Your task to perform on an android device: turn pop-ups on in chrome Image 0: 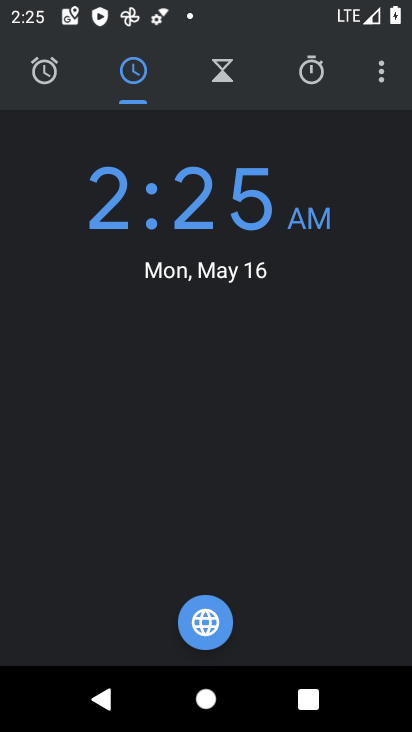
Step 0: press home button
Your task to perform on an android device: turn pop-ups on in chrome Image 1: 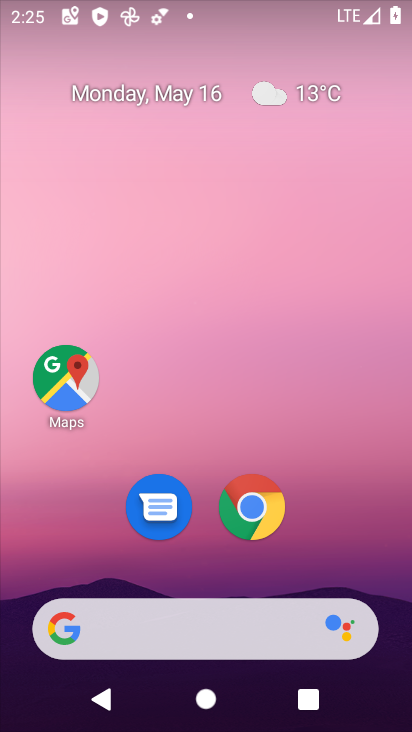
Step 1: click (271, 511)
Your task to perform on an android device: turn pop-ups on in chrome Image 2: 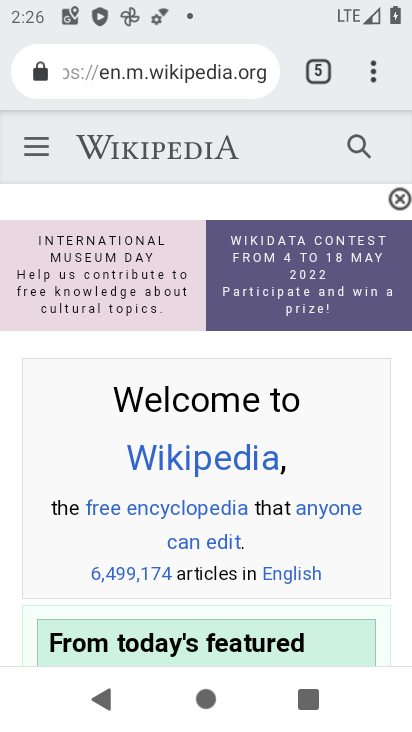
Step 2: click (374, 69)
Your task to perform on an android device: turn pop-ups on in chrome Image 3: 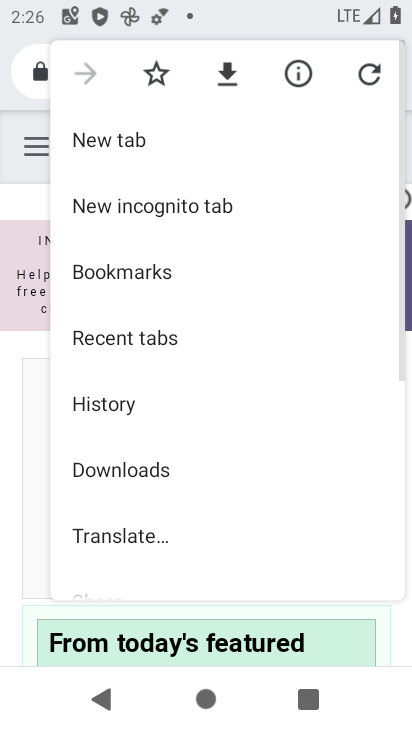
Step 3: drag from (259, 516) to (217, 161)
Your task to perform on an android device: turn pop-ups on in chrome Image 4: 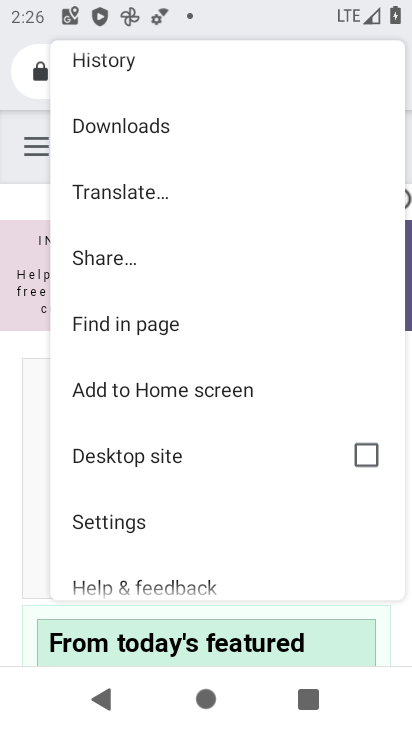
Step 4: drag from (236, 478) to (213, 108)
Your task to perform on an android device: turn pop-ups on in chrome Image 5: 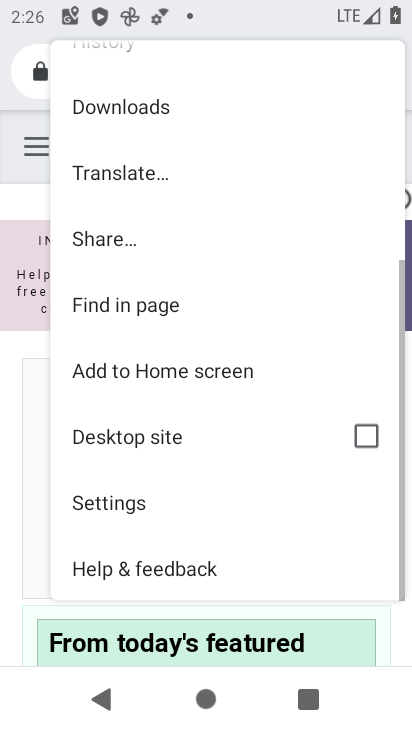
Step 5: click (207, 502)
Your task to perform on an android device: turn pop-ups on in chrome Image 6: 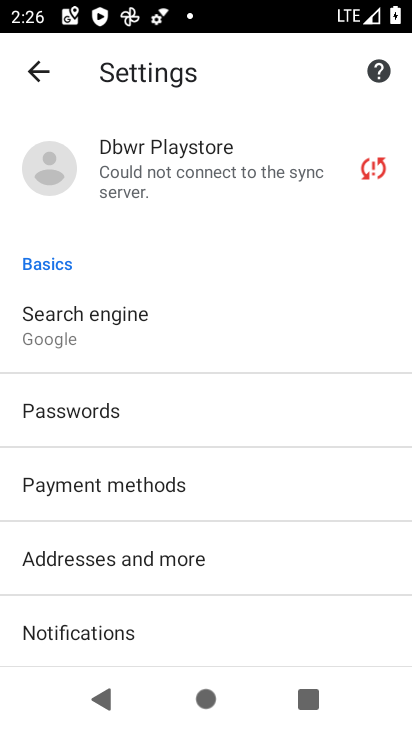
Step 6: drag from (253, 514) to (219, 166)
Your task to perform on an android device: turn pop-ups on in chrome Image 7: 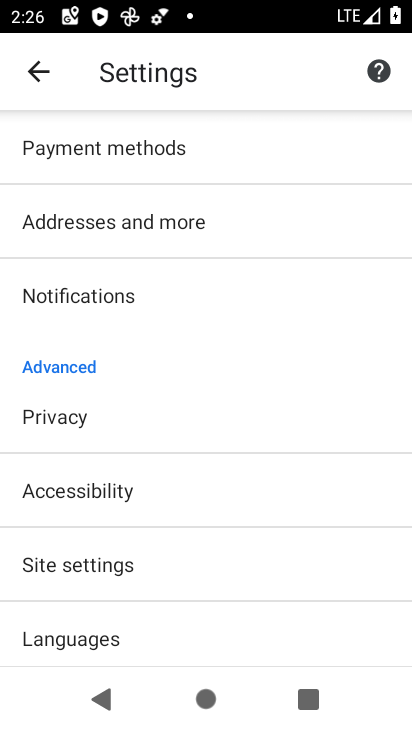
Step 7: drag from (174, 535) to (181, 341)
Your task to perform on an android device: turn pop-ups on in chrome Image 8: 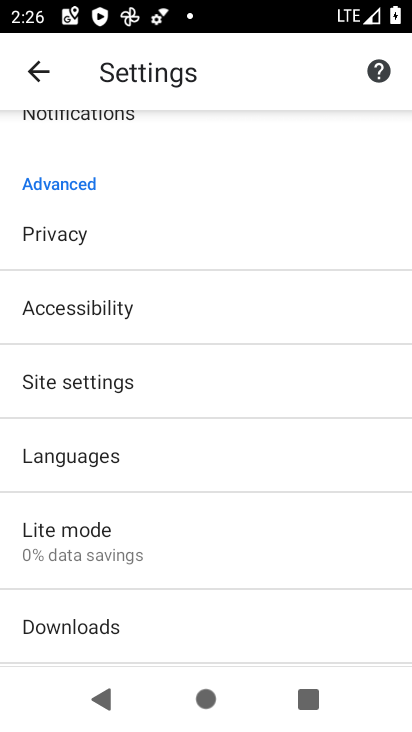
Step 8: click (129, 380)
Your task to perform on an android device: turn pop-ups on in chrome Image 9: 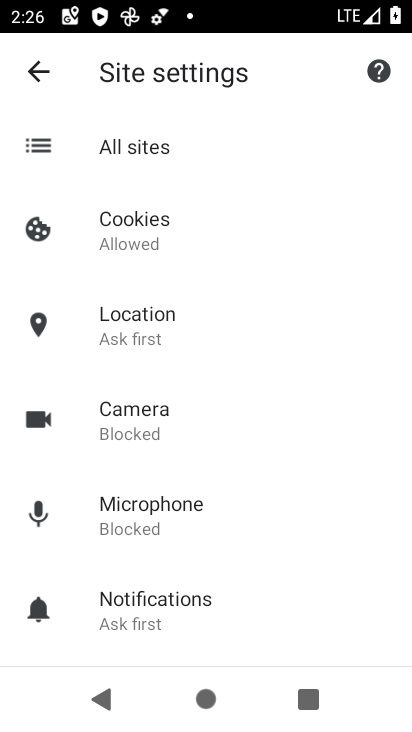
Step 9: drag from (220, 571) to (202, 255)
Your task to perform on an android device: turn pop-ups on in chrome Image 10: 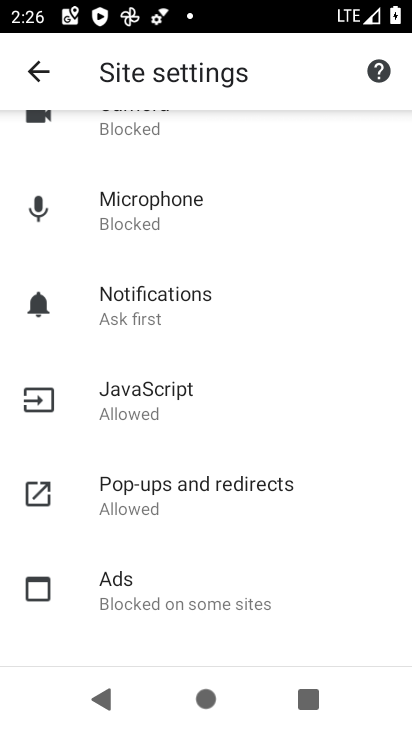
Step 10: click (205, 511)
Your task to perform on an android device: turn pop-ups on in chrome Image 11: 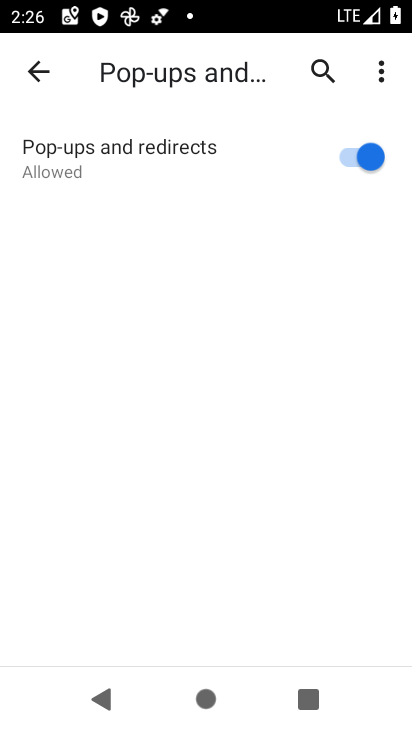
Step 11: task complete